Your task to perform on an android device: all mails in gmail Image 0: 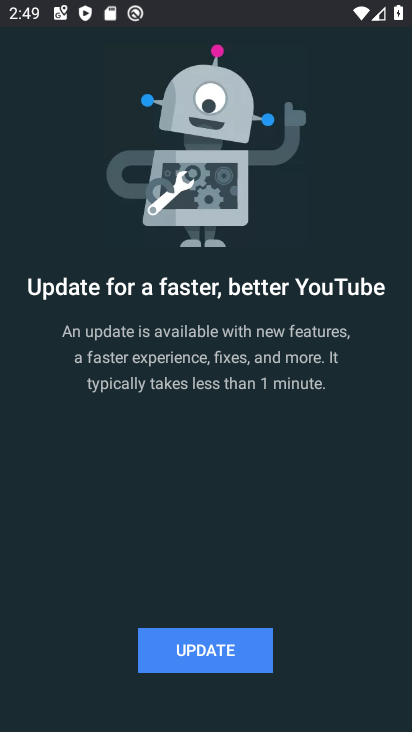
Step 0: press home button
Your task to perform on an android device: all mails in gmail Image 1: 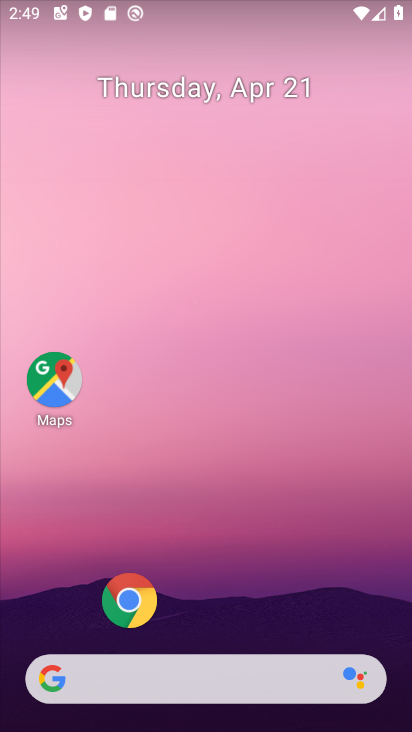
Step 1: drag from (24, 687) to (327, 220)
Your task to perform on an android device: all mails in gmail Image 2: 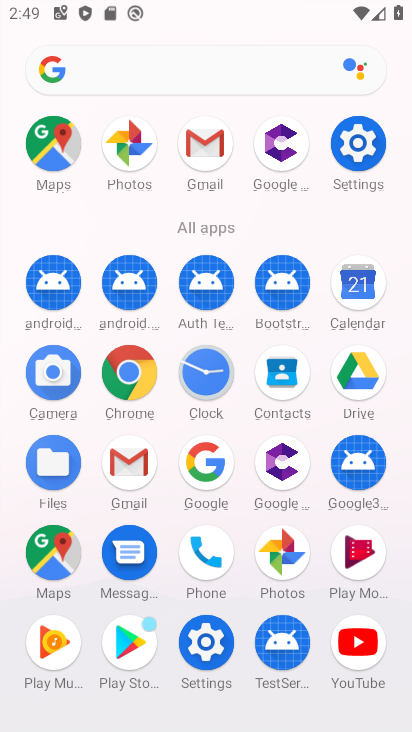
Step 2: click (198, 157)
Your task to perform on an android device: all mails in gmail Image 3: 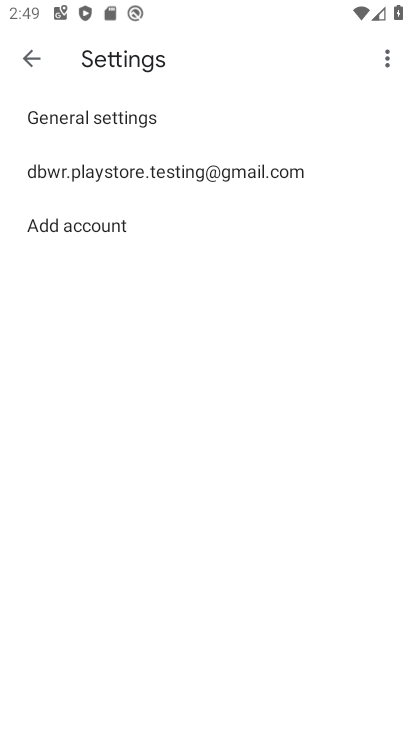
Step 3: click (32, 39)
Your task to perform on an android device: all mails in gmail Image 4: 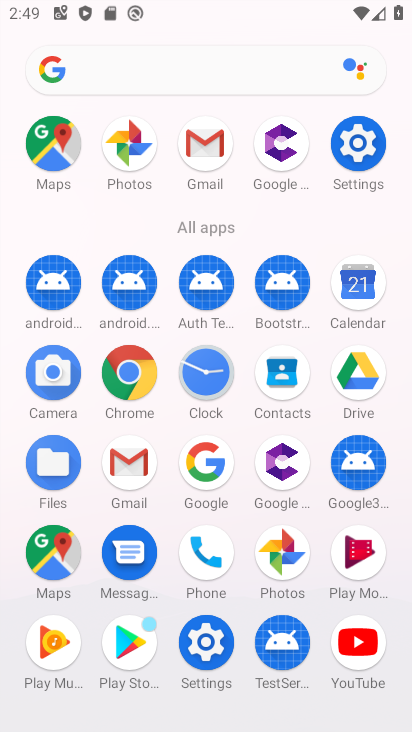
Step 4: click (208, 158)
Your task to perform on an android device: all mails in gmail Image 5: 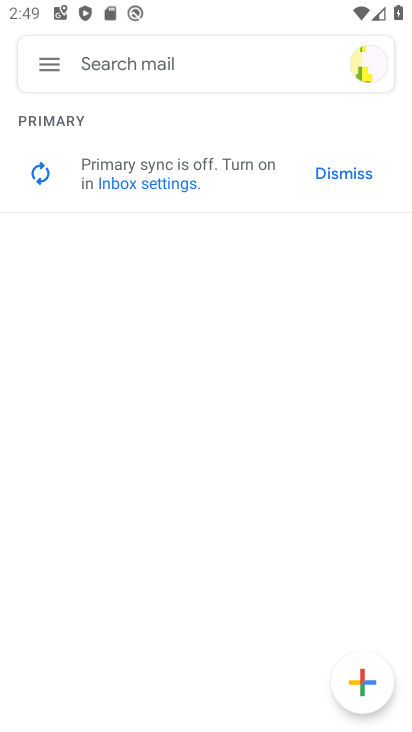
Step 5: click (34, 83)
Your task to perform on an android device: all mails in gmail Image 6: 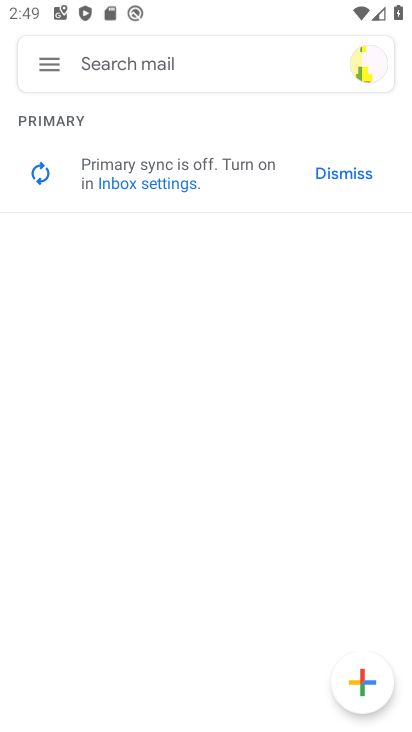
Step 6: click (42, 68)
Your task to perform on an android device: all mails in gmail Image 7: 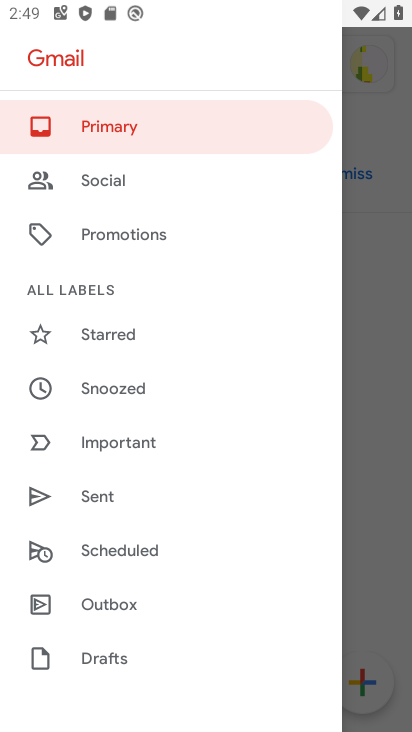
Step 7: drag from (186, 679) to (282, 303)
Your task to perform on an android device: all mails in gmail Image 8: 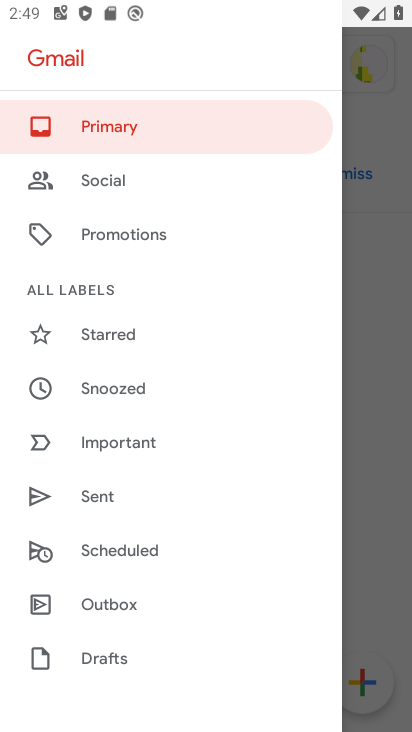
Step 8: drag from (183, 650) to (237, 230)
Your task to perform on an android device: all mails in gmail Image 9: 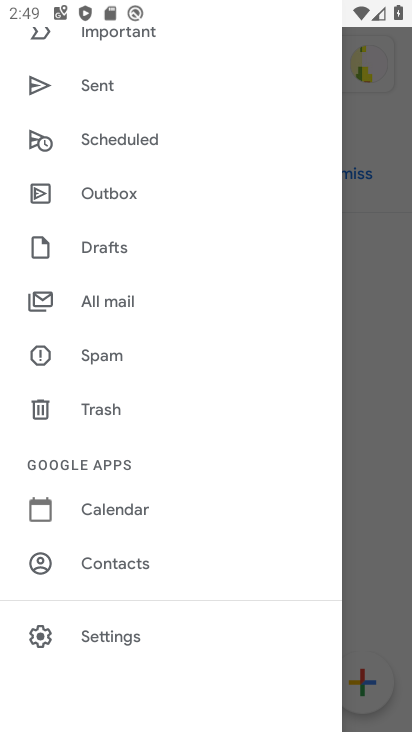
Step 9: click (115, 292)
Your task to perform on an android device: all mails in gmail Image 10: 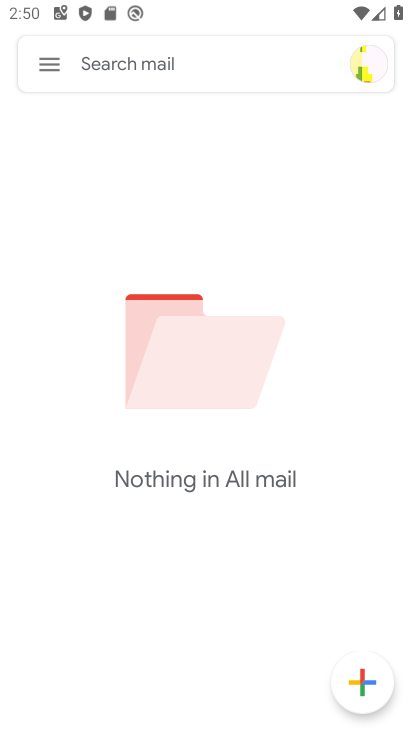
Step 10: task complete